Your task to perform on an android device: turn off translation in the chrome app Image 0: 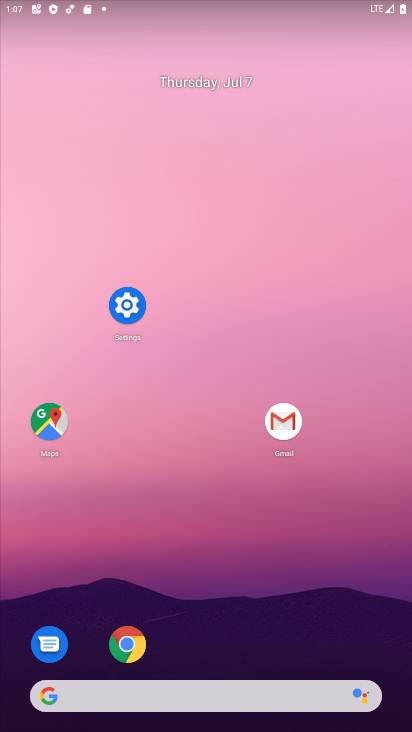
Step 0: click (128, 648)
Your task to perform on an android device: turn off translation in the chrome app Image 1: 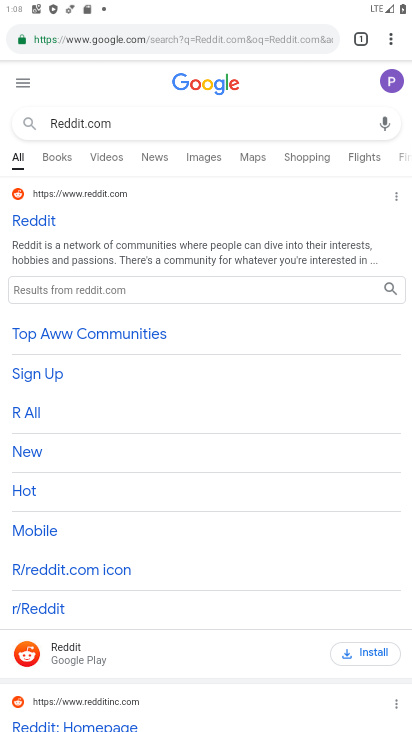
Step 1: click (392, 35)
Your task to perform on an android device: turn off translation in the chrome app Image 2: 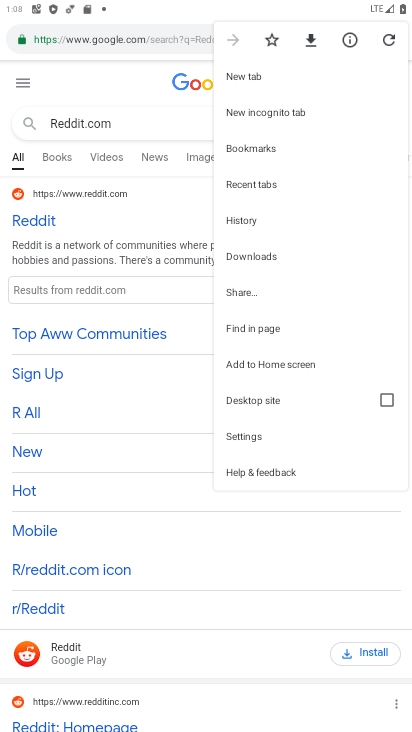
Step 2: click (246, 438)
Your task to perform on an android device: turn off translation in the chrome app Image 3: 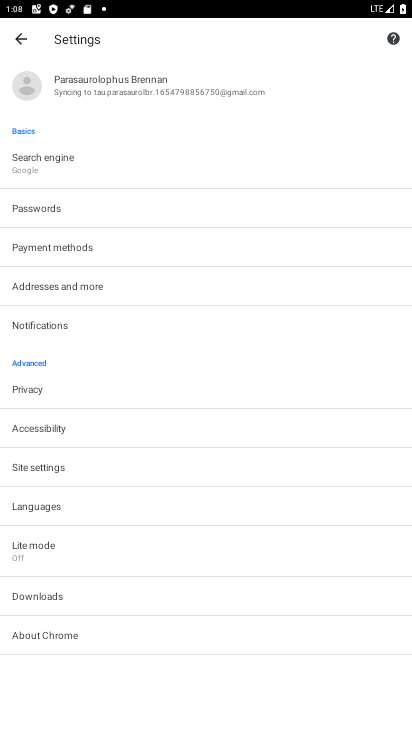
Step 3: click (46, 513)
Your task to perform on an android device: turn off translation in the chrome app Image 4: 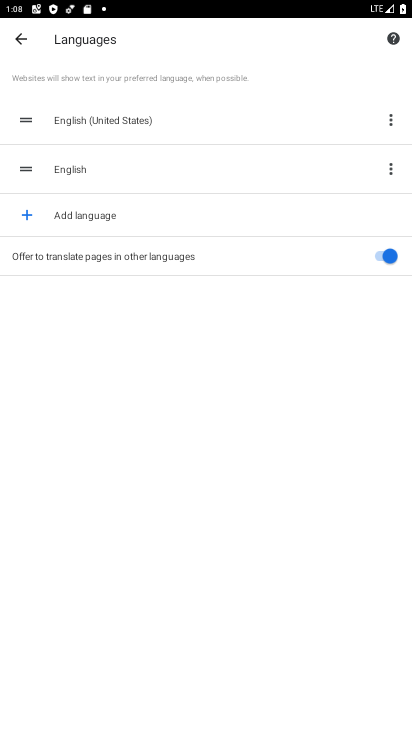
Step 4: click (378, 255)
Your task to perform on an android device: turn off translation in the chrome app Image 5: 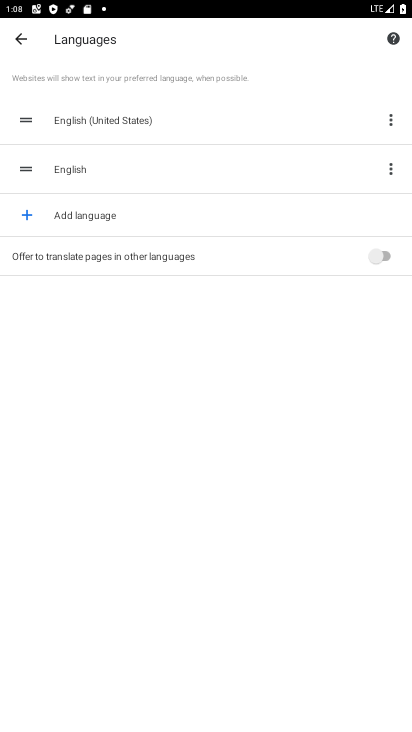
Step 5: task complete